Your task to perform on an android device: Open network settings Image 0: 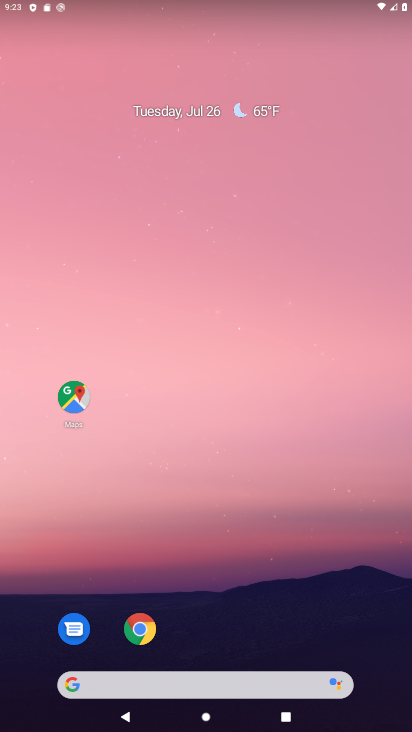
Step 0: drag from (274, 606) to (146, 43)
Your task to perform on an android device: Open network settings Image 1: 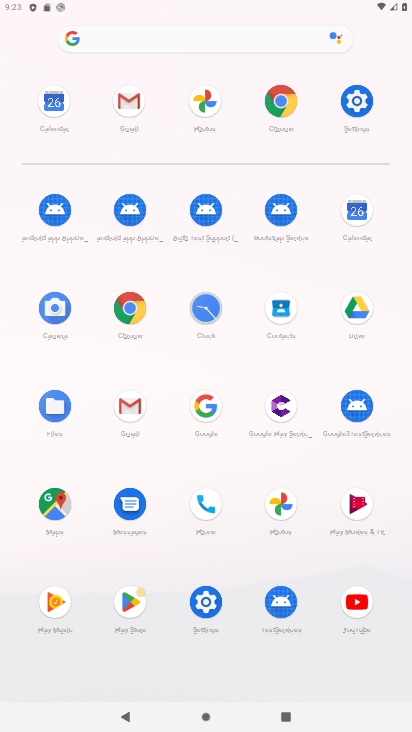
Step 1: click (361, 94)
Your task to perform on an android device: Open network settings Image 2: 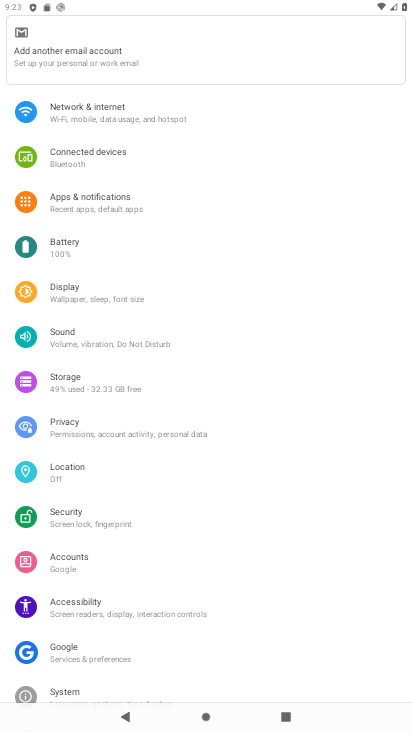
Step 2: click (88, 107)
Your task to perform on an android device: Open network settings Image 3: 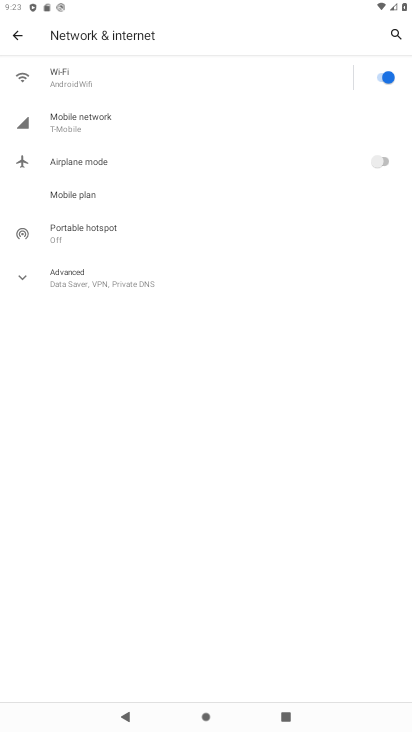
Step 3: task complete